Your task to perform on an android device: add a contact in the contacts app Image 0: 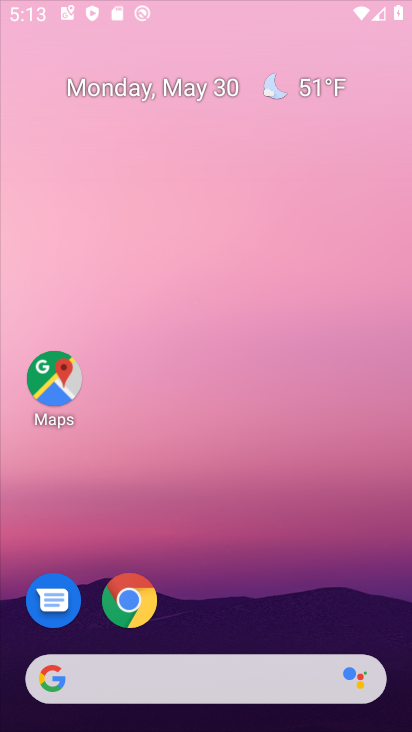
Step 0: click (256, 11)
Your task to perform on an android device: add a contact in the contacts app Image 1: 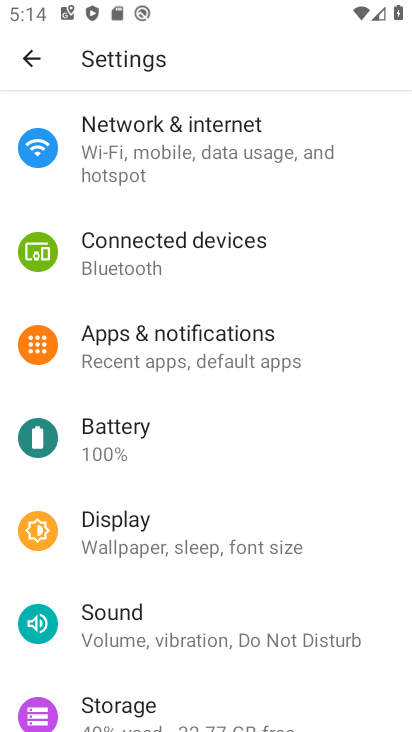
Step 1: click (178, 144)
Your task to perform on an android device: add a contact in the contacts app Image 2: 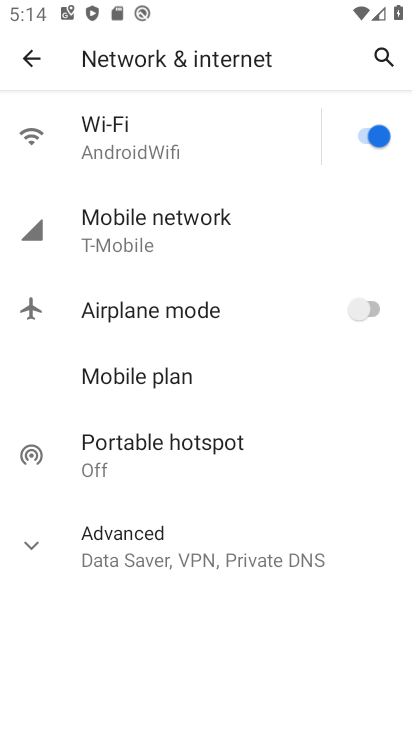
Step 2: click (21, 66)
Your task to perform on an android device: add a contact in the contacts app Image 3: 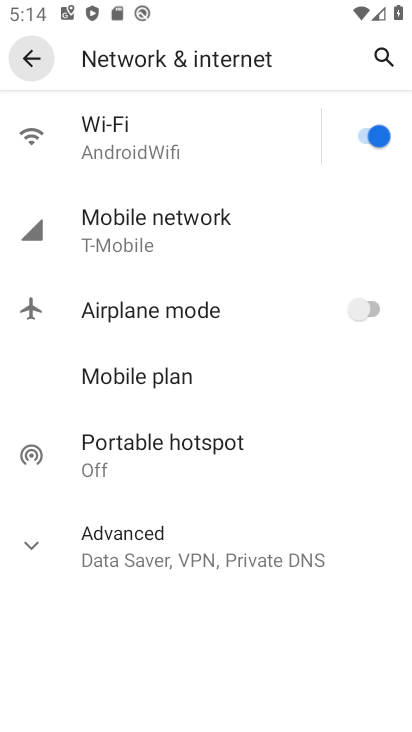
Step 3: click (21, 66)
Your task to perform on an android device: add a contact in the contacts app Image 4: 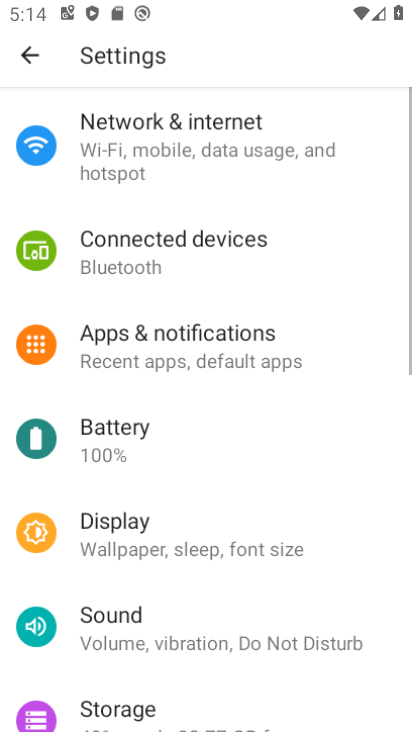
Step 4: click (25, 64)
Your task to perform on an android device: add a contact in the contacts app Image 5: 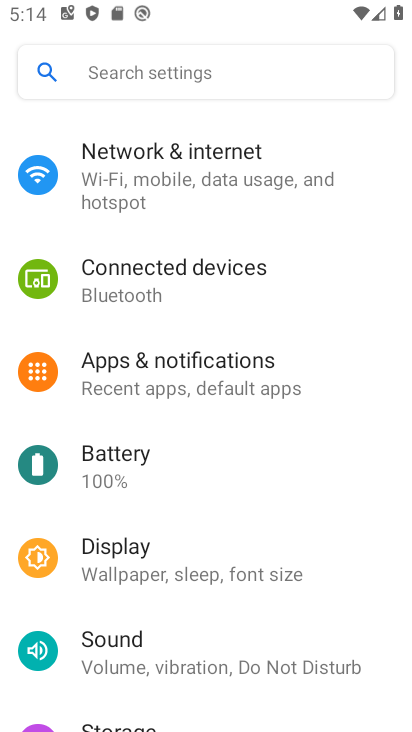
Step 5: press back button
Your task to perform on an android device: add a contact in the contacts app Image 6: 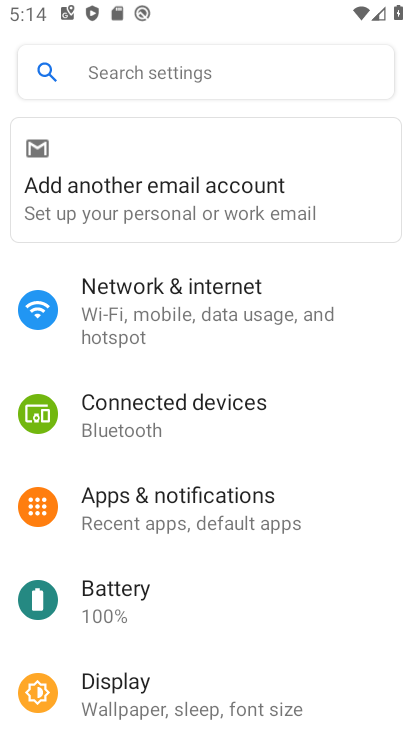
Step 6: press back button
Your task to perform on an android device: add a contact in the contacts app Image 7: 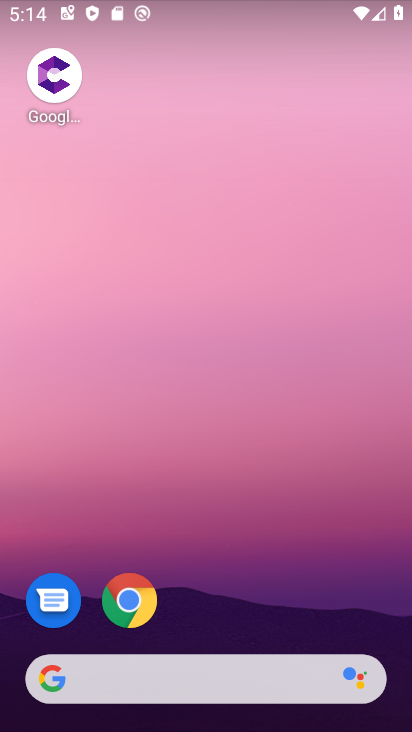
Step 7: drag from (231, 628) to (160, 71)
Your task to perform on an android device: add a contact in the contacts app Image 8: 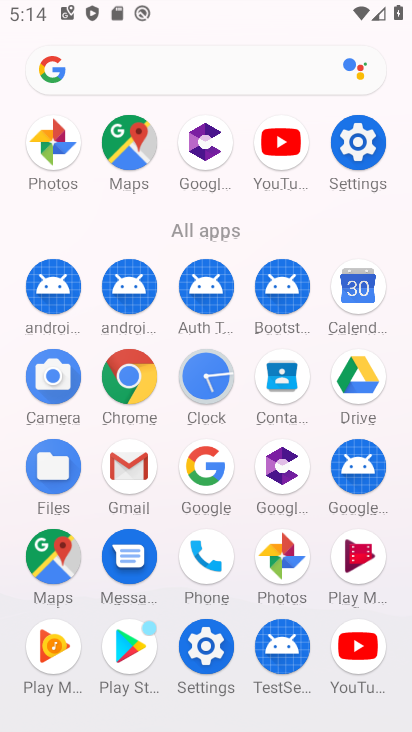
Step 8: click (285, 375)
Your task to perform on an android device: add a contact in the contacts app Image 9: 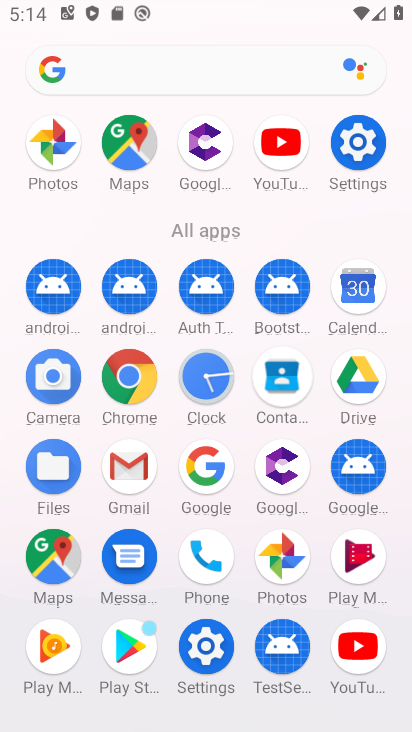
Step 9: click (285, 375)
Your task to perform on an android device: add a contact in the contacts app Image 10: 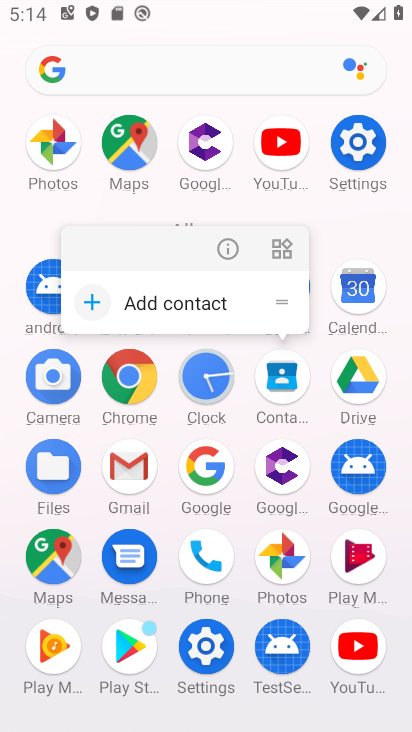
Step 10: click (180, 304)
Your task to perform on an android device: add a contact in the contacts app Image 11: 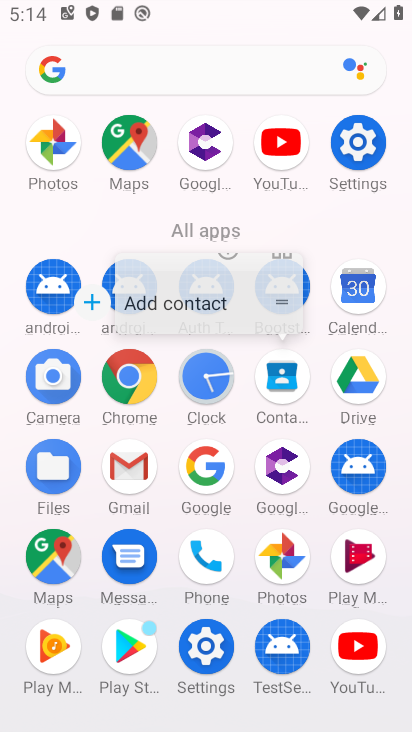
Step 11: click (181, 304)
Your task to perform on an android device: add a contact in the contacts app Image 12: 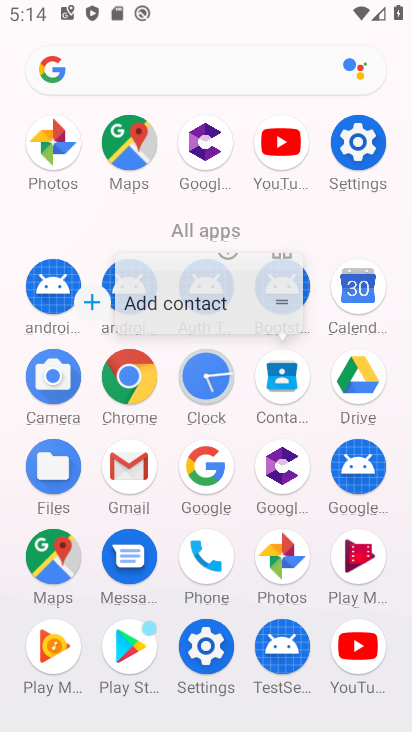
Step 12: click (181, 304)
Your task to perform on an android device: add a contact in the contacts app Image 13: 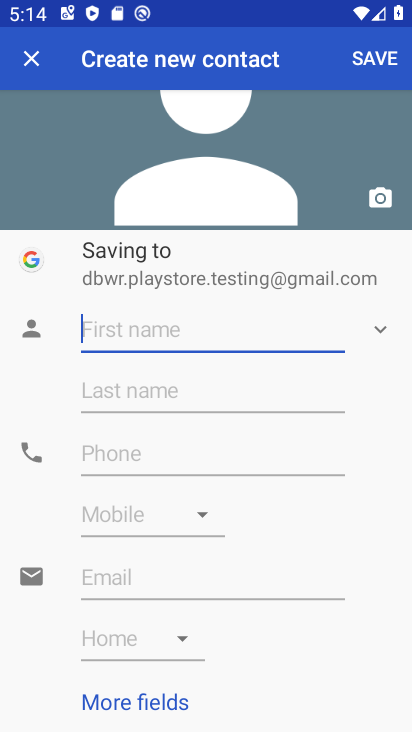
Step 13: click (107, 344)
Your task to perform on an android device: add a contact in the contacts app Image 14: 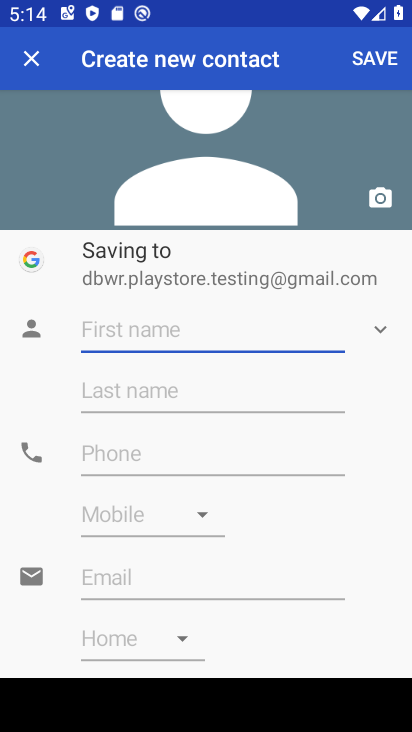
Step 14: type "hfxvkjshvjk"
Your task to perform on an android device: add a contact in the contacts app Image 15: 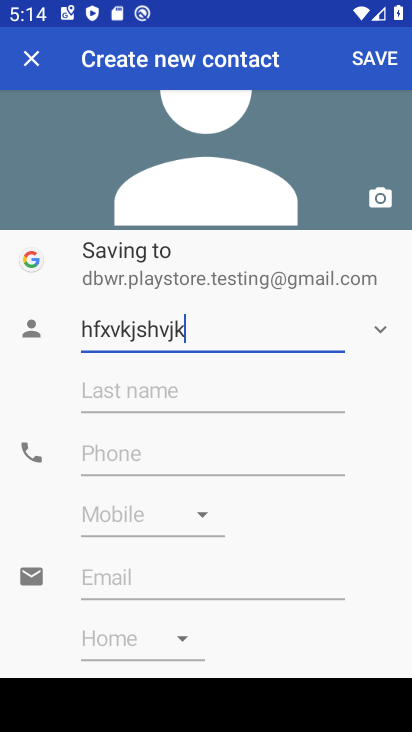
Step 15: click (116, 446)
Your task to perform on an android device: add a contact in the contacts app Image 16: 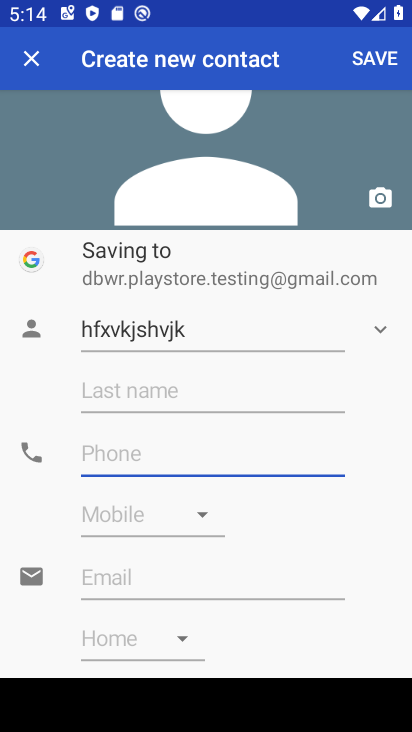
Step 16: type "6983278932758"
Your task to perform on an android device: add a contact in the contacts app Image 17: 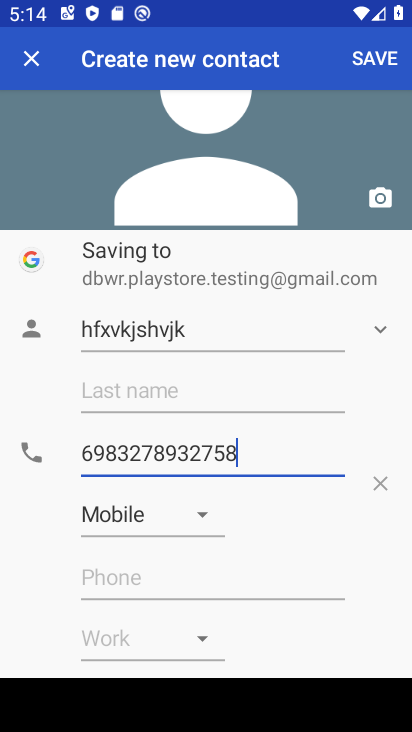
Step 17: click (392, 64)
Your task to perform on an android device: add a contact in the contacts app Image 18: 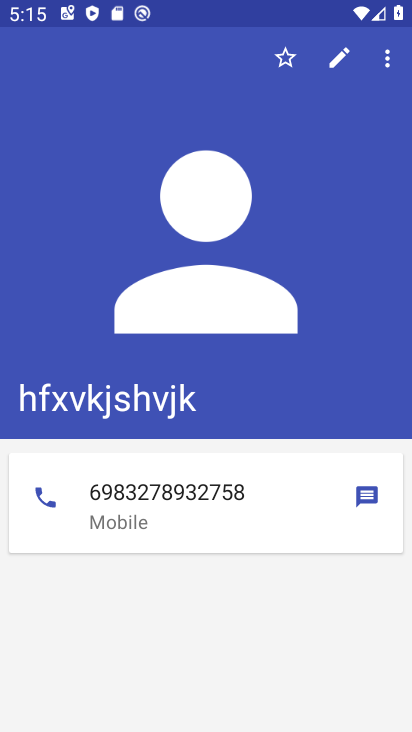
Step 18: task complete